Your task to perform on an android device: open the mobile data screen to see how much data has been used Image 0: 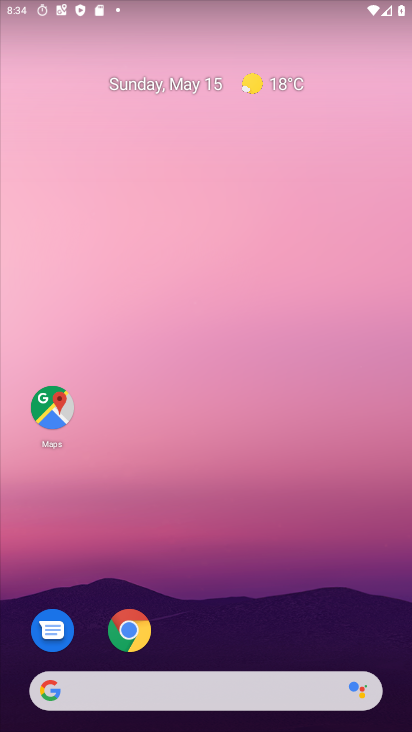
Step 0: drag from (209, 599) to (294, 140)
Your task to perform on an android device: open the mobile data screen to see how much data has been used Image 1: 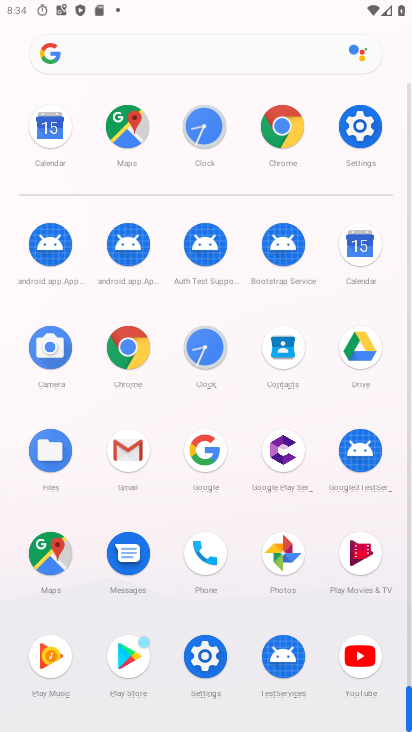
Step 1: click (365, 120)
Your task to perform on an android device: open the mobile data screen to see how much data has been used Image 2: 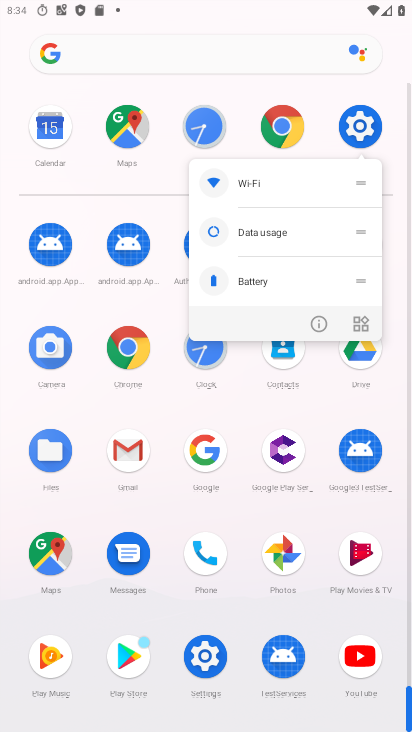
Step 2: click (318, 320)
Your task to perform on an android device: open the mobile data screen to see how much data has been used Image 3: 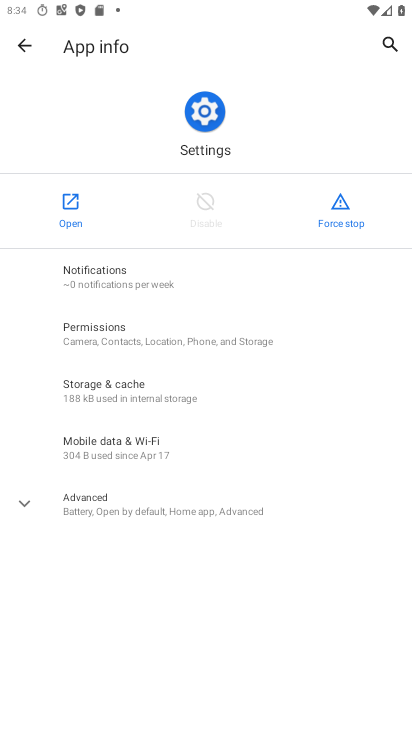
Step 3: click (71, 207)
Your task to perform on an android device: open the mobile data screen to see how much data has been used Image 4: 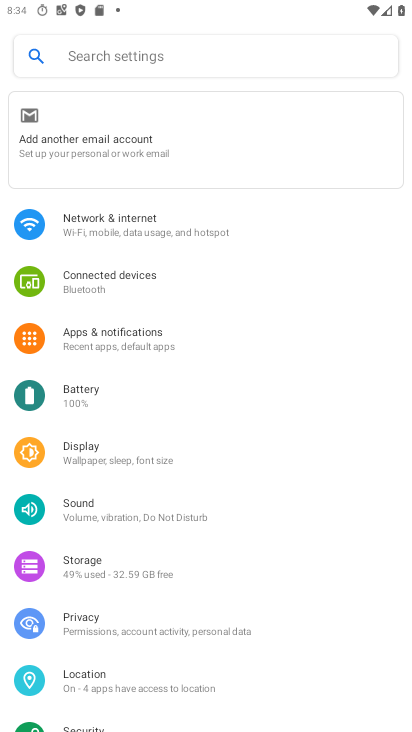
Step 4: click (173, 231)
Your task to perform on an android device: open the mobile data screen to see how much data has been used Image 5: 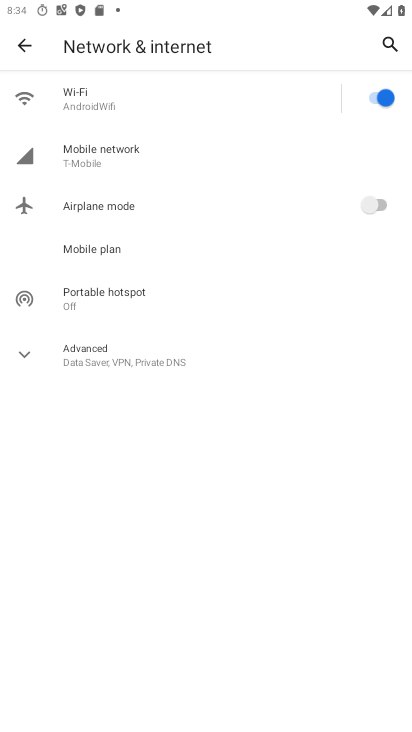
Step 5: click (205, 158)
Your task to perform on an android device: open the mobile data screen to see how much data has been used Image 6: 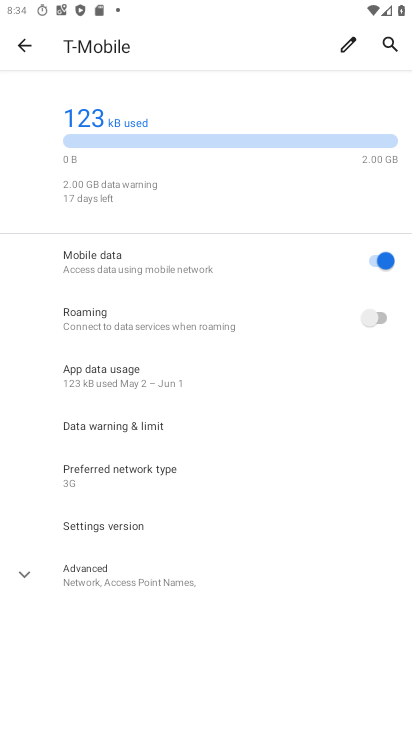
Step 6: task complete